Your task to perform on an android device: toggle notification dots Image 0: 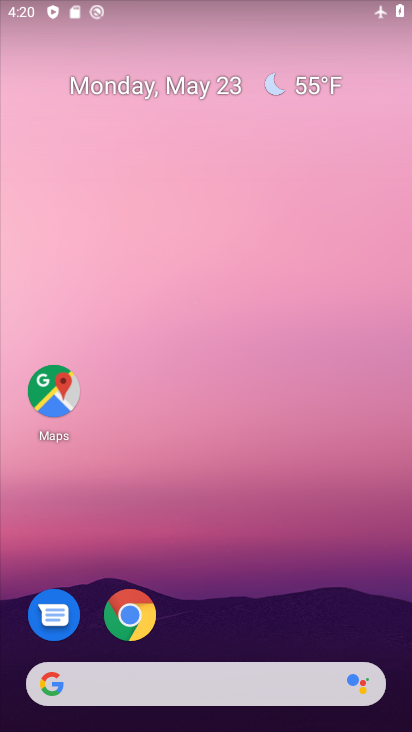
Step 0: drag from (365, 623) to (371, 170)
Your task to perform on an android device: toggle notification dots Image 1: 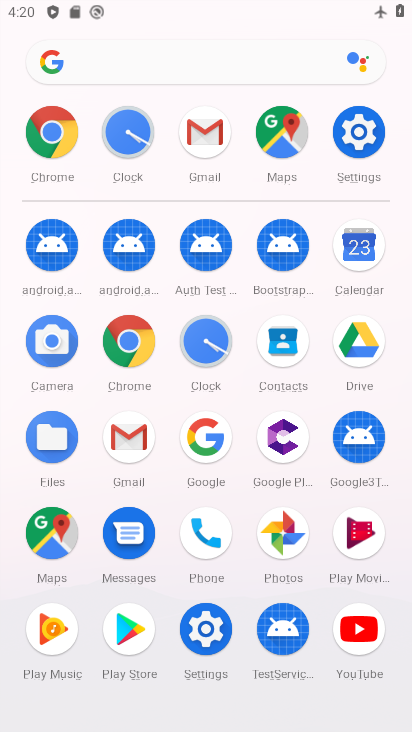
Step 1: click (216, 634)
Your task to perform on an android device: toggle notification dots Image 2: 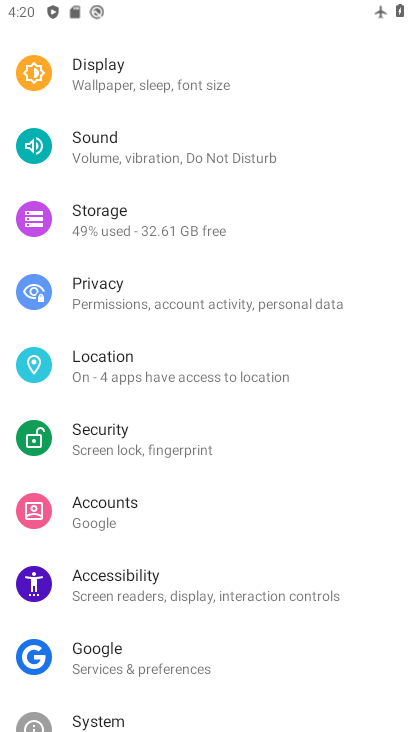
Step 2: drag from (304, 675) to (336, 555)
Your task to perform on an android device: toggle notification dots Image 3: 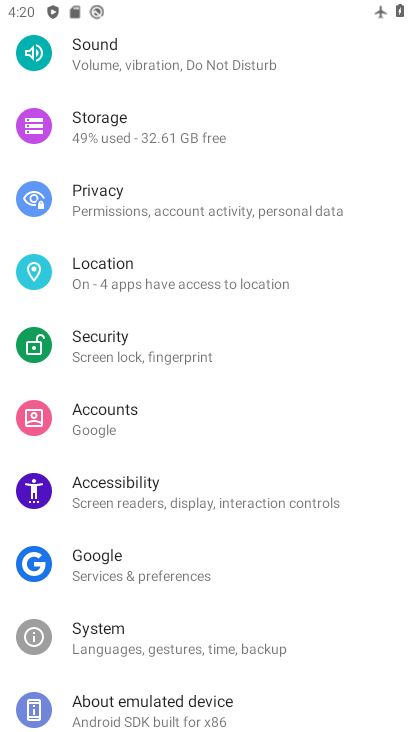
Step 3: drag from (361, 693) to (354, 574)
Your task to perform on an android device: toggle notification dots Image 4: 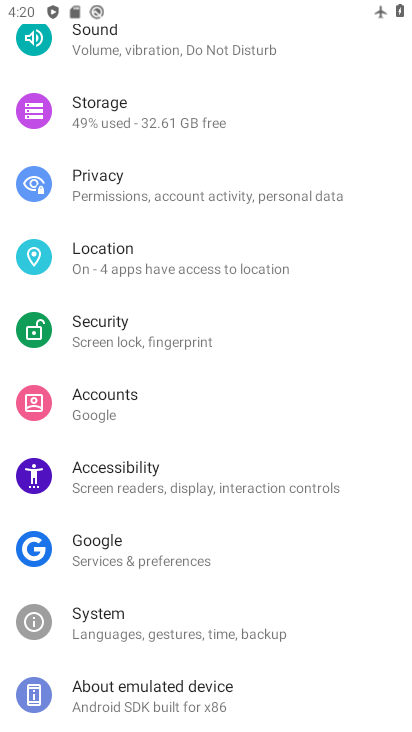
Step 4: drag from (361, 518) to (346, 599)
Your task to perform on an android device: toggle notification dots Image 5: 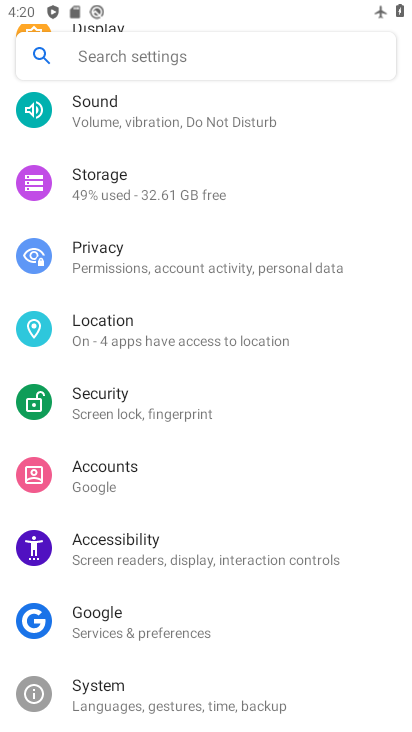
Step 5: drag from (353, 515) to (362, 586)
Your task to perform on an android device: toggle notification dots Image 6: 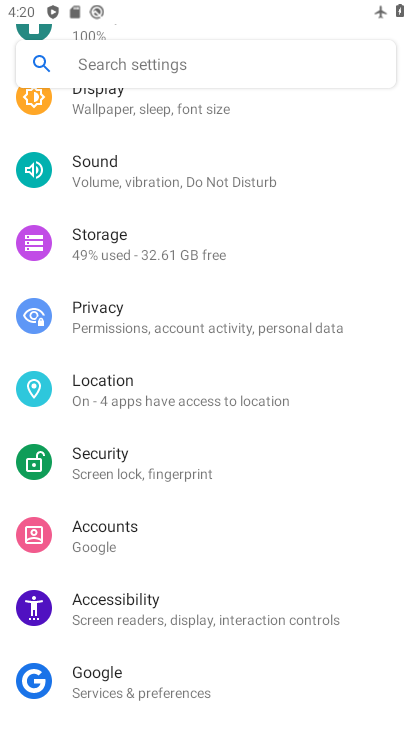
Step 6: drag from (360, 517) to (366, 608)
Your task to perform on an android device: toggle notification dots Image 7: 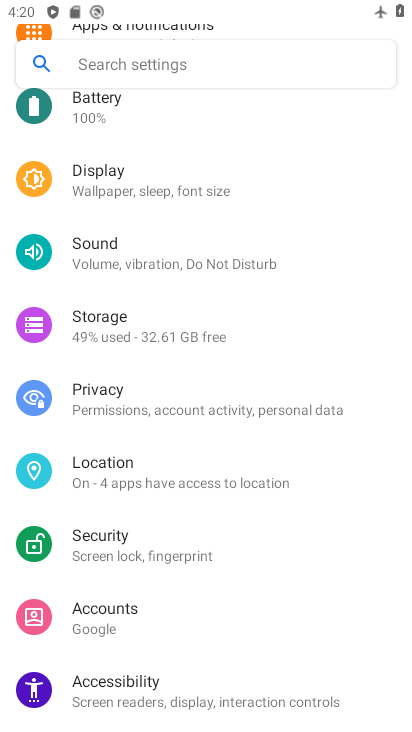
Step 7: drag from (368, 508) to (373, 594)
Your task to perform on an android device: toggle notification dots Image 8: 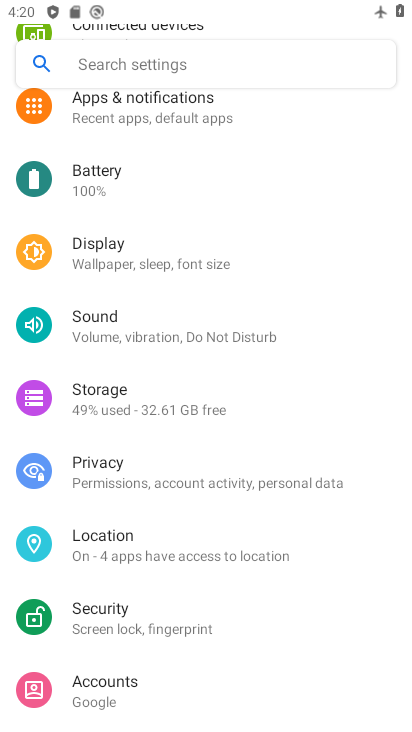
Step 8: drag from (367, 490) to (366, 582)
Your task to perform on an android device: toggle notification dots Image 9: 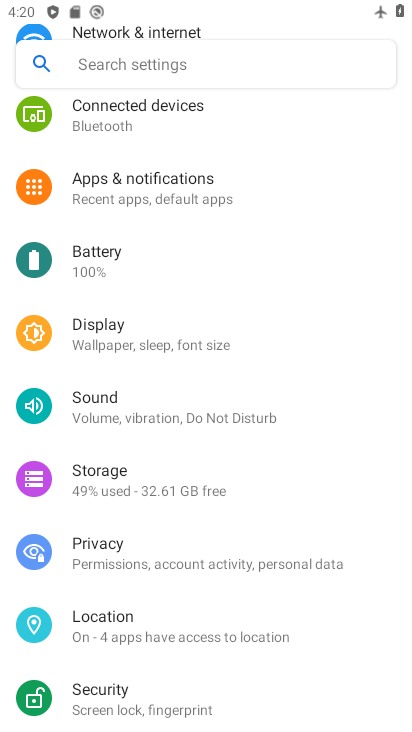
Step 9: drag from (364, 486) to (366, 586)
Your task to perform on an android device: toggle notification dots Image 10: 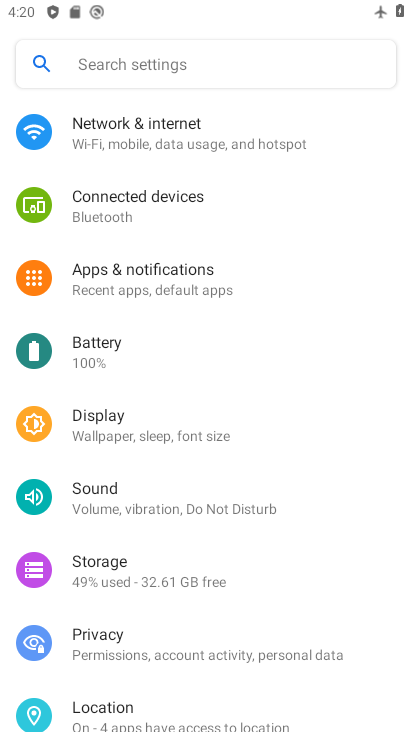
Step 10: drag from (376, 468) to (373, 594)
Your task to perform on an android device: toggle notification dots Image 11: 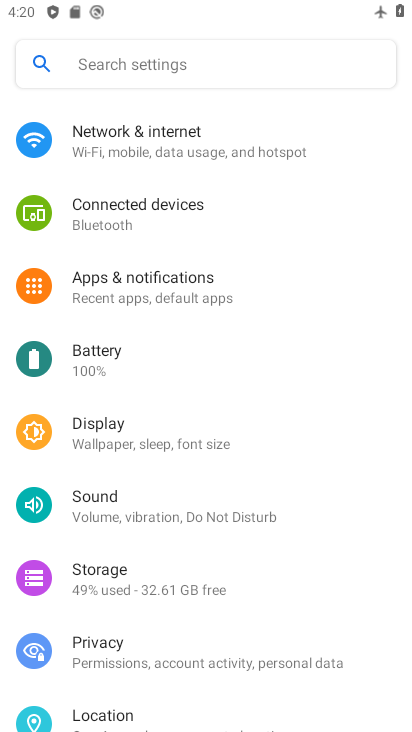
Step 11: drag from (369, 451) to (369, 590)
Your task to perform on an android device: toggle notification dots Image 12: 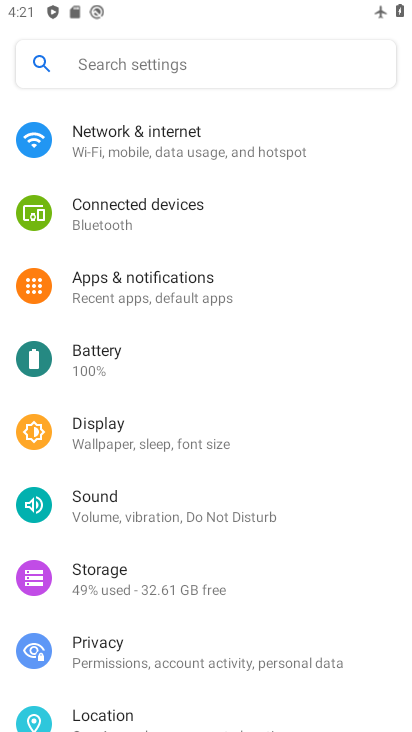
Step 12: drag from (365, 392) to (345, 546)
Your task to perform on an android device: toggle notification dots Image 13: 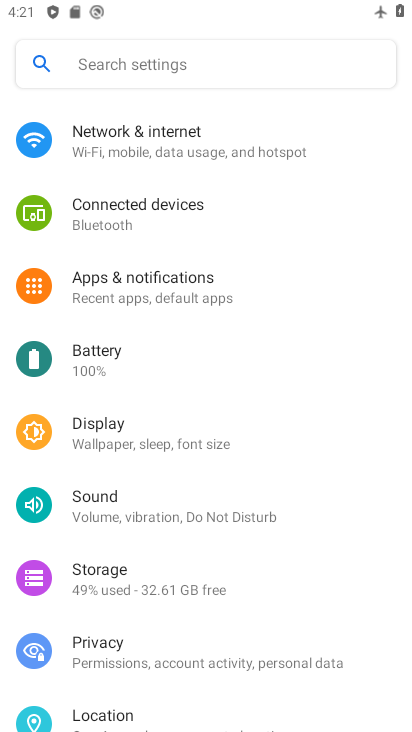
Step 13: drag from (338, 376) to (338, 545)
Your task to perform on an android device: toggle notification dots Image 14: 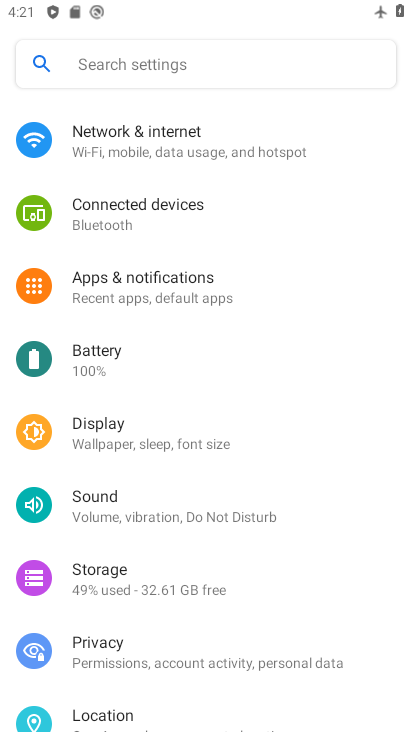
Step 14: click (168, 291)
Your task to perform on an android device: toggle notification dots Image 15: 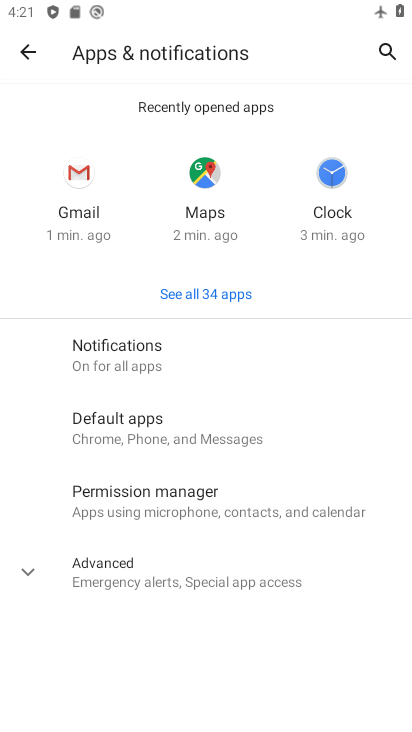
Step 15: click (132, 367)
Your task to perform on an android device: toggle notification dots Image 16: 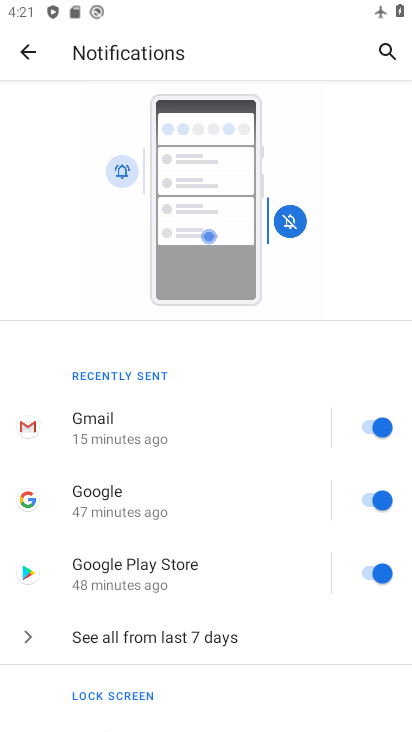
Step 16: drag from (246, 590) to (246, 469)
Your task to perform on an android device: toggle notification dots Image 17: 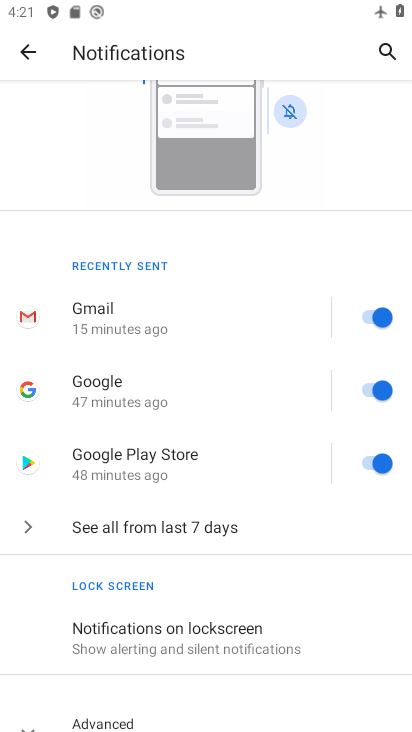
Step 17: drag from (255, 653) to (261, 553)
Your task to perform on an android device: toggle notification dots Image 18: 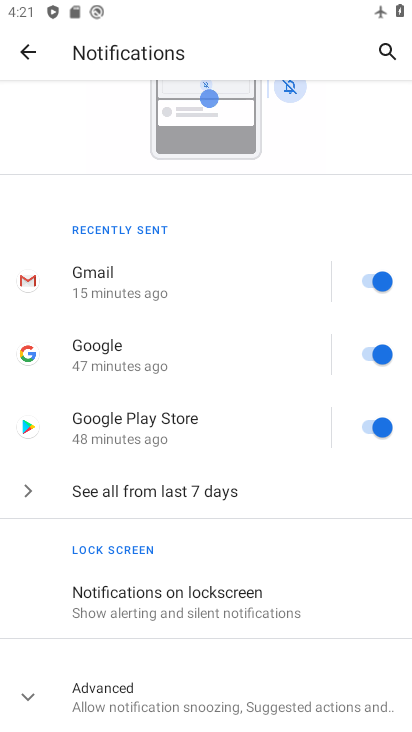
Step 18: click (205, 700)
Your task to perform on an android device: toggle notification dots Image 19: 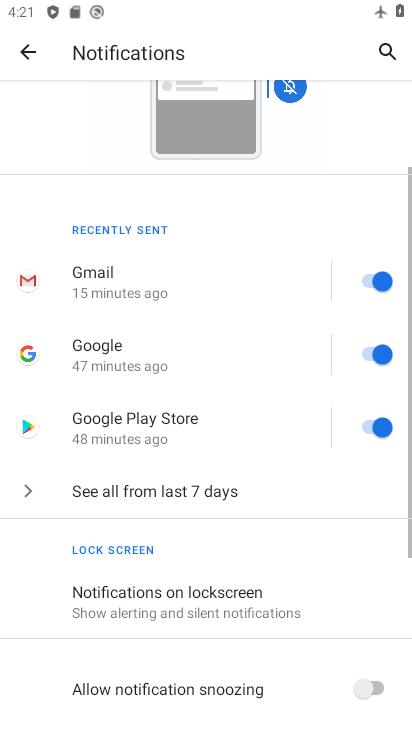
Step 19: drag from (273, 664) to (282, 545)
Your task to perform on an android device: toggle notification dots Image 20: 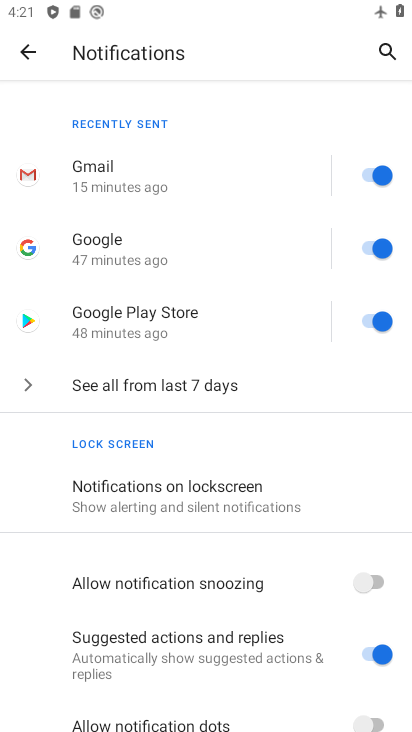
Step 20: drag from (292, 692) to (311, 576)
Your task to perform on an android device: toggle notification dots Image 21: 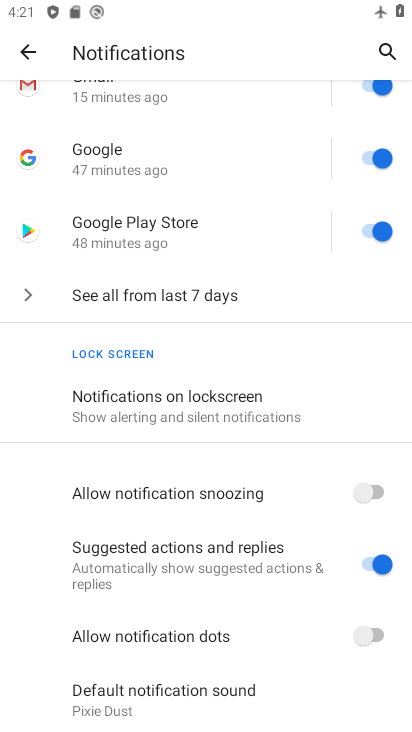
Step 21: drag from (290, 699) to (290, 611)
Your task to perform on an android device: toggle notification dots Image 22: 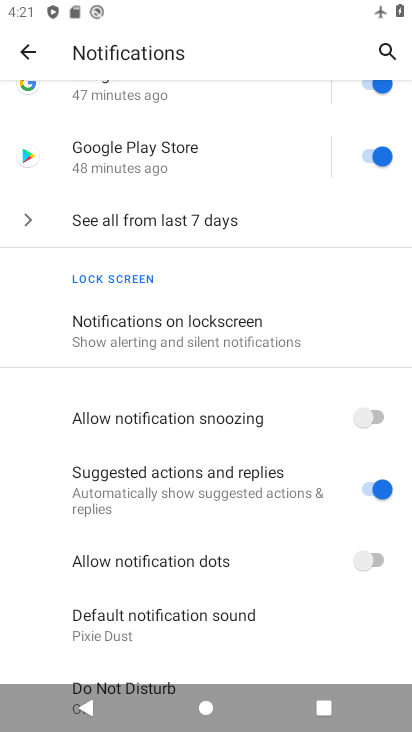
Step 22: click (357, 568)
Your task to perform on an android device: toggle notification dots Image 23: 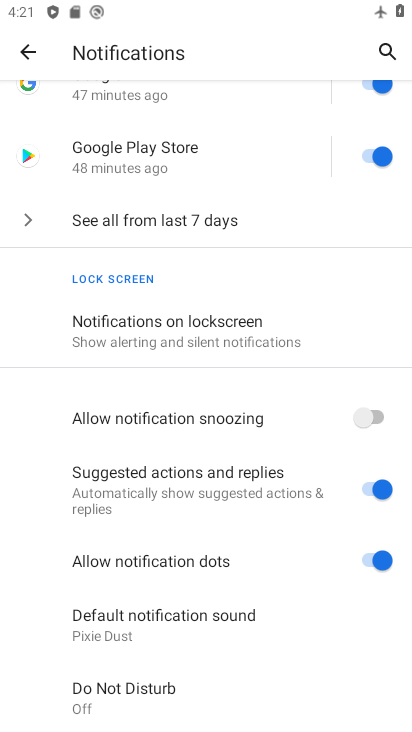
Step 23: task complete